Your task to perform on an android device: Search for the ikea sjalv lamp Image 0: 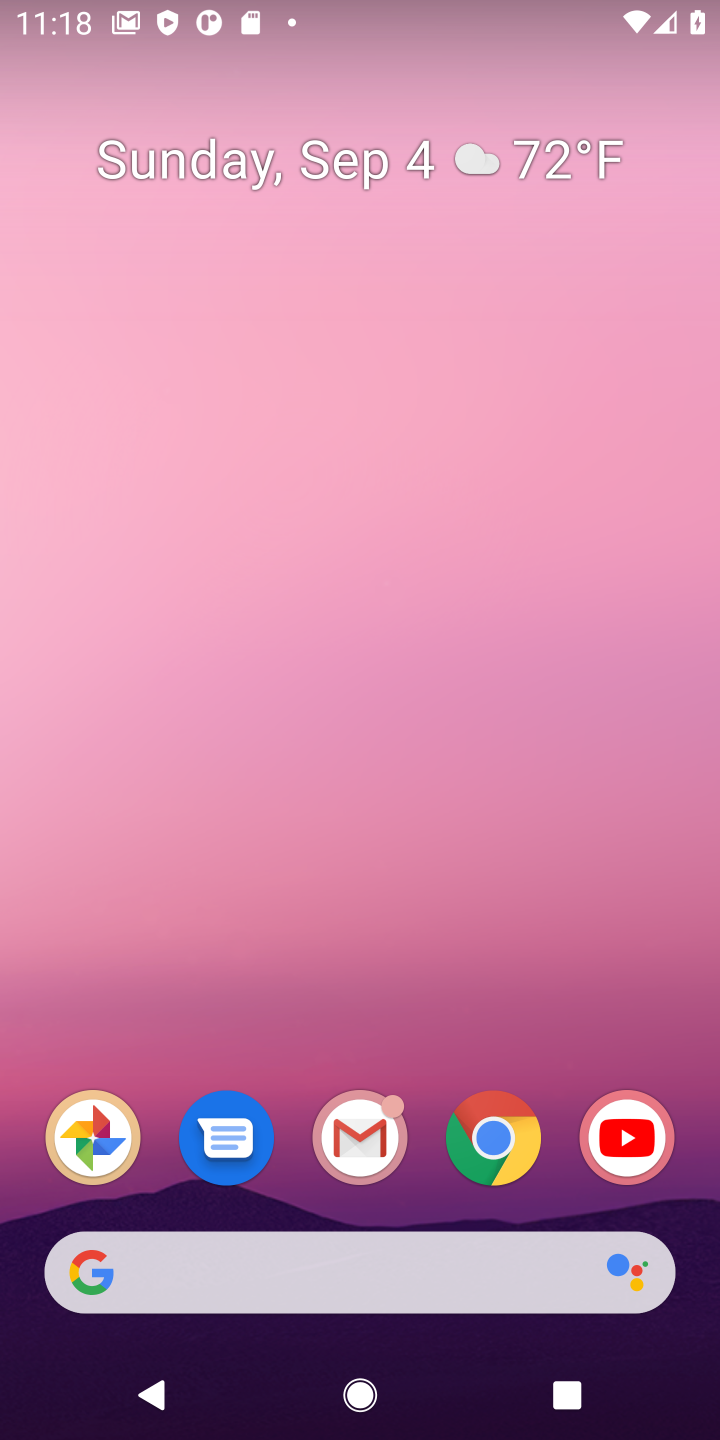
Step 0: click (484, 1172)
Your task to perform on an android device: Search for the ikea sjalv lamp Image 1: 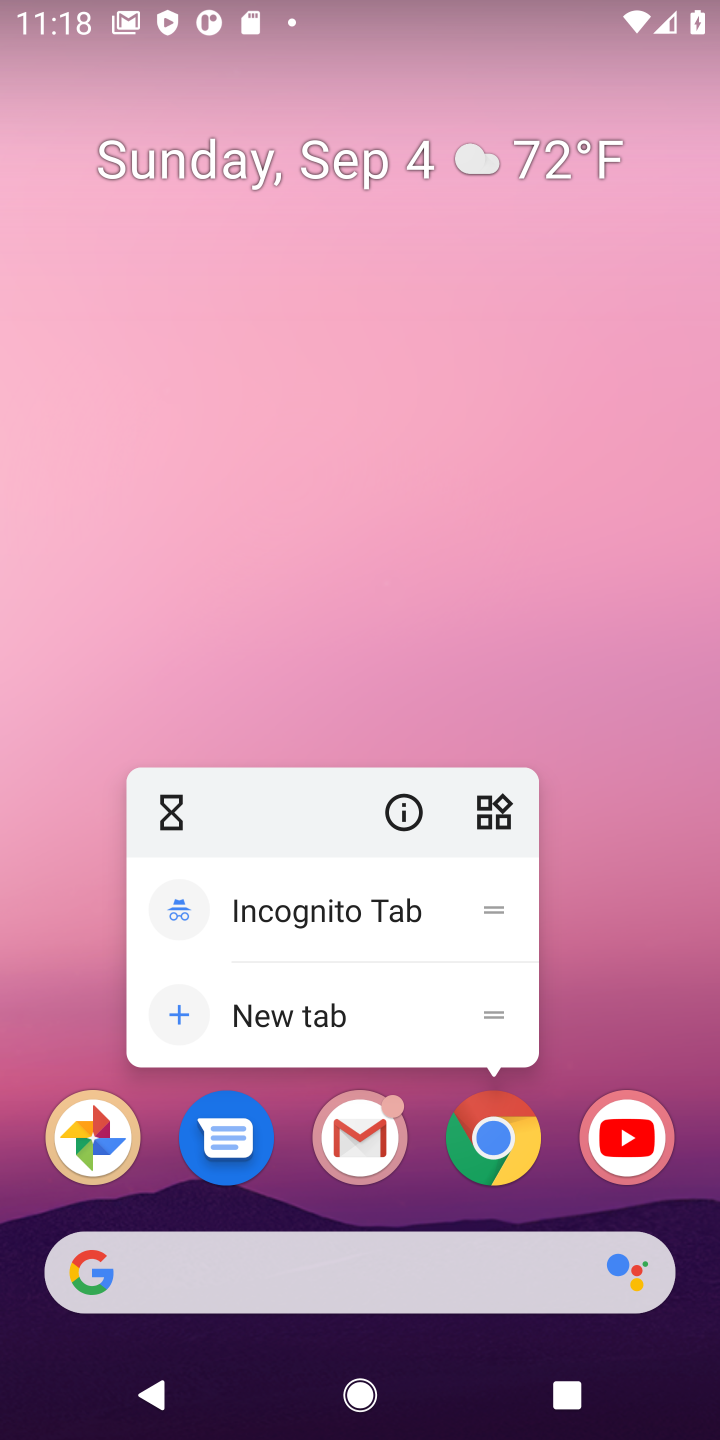
Step 1: click (480, 1164)
Your task to perform on an android device: Search for the ikea sjalv lamp Image 2: 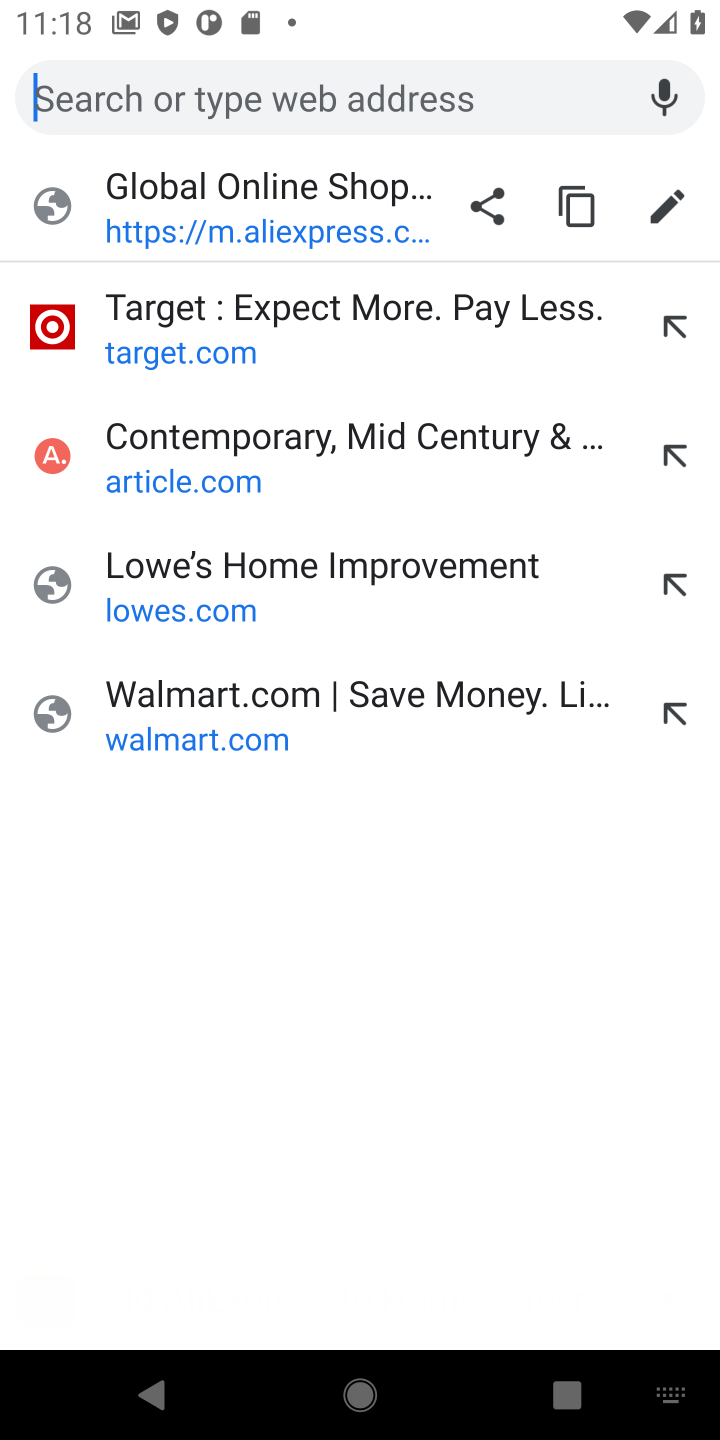
Step 2: type "ikea sjalv lamp"
Your task to perform on an android device: Search for the ikea sjalv lamp Image 3: 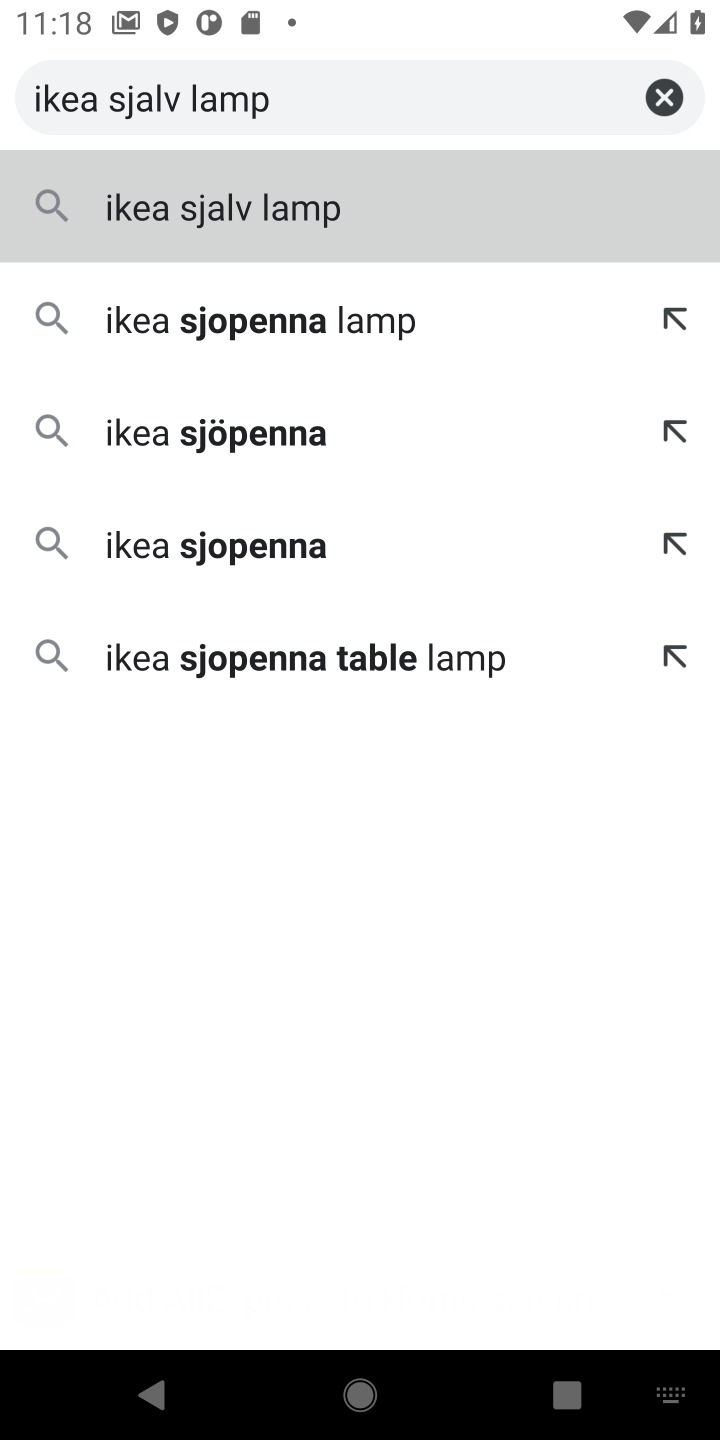
Step 3: click (321, 193)
Your task to perform on an android device: Search for the ikea sjalv lamp Image 4: 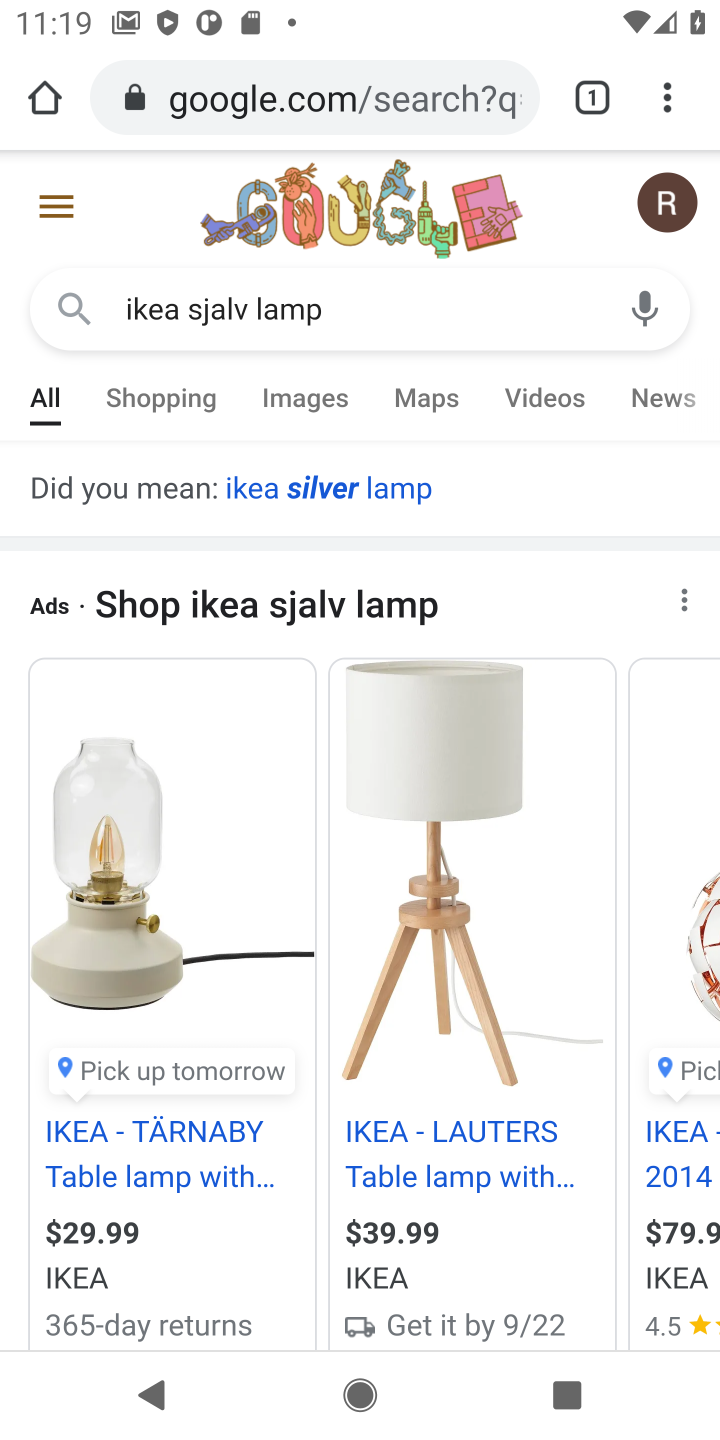
Step 4: task complete